Your task to perform on an android device: Show me recent news Image 0: 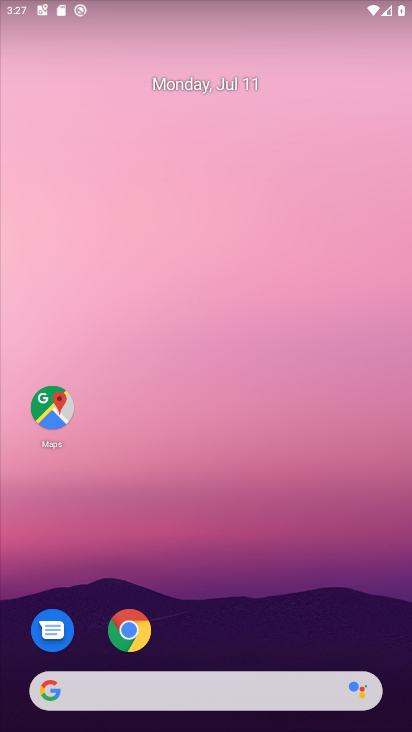
Step 0: click (208, 701)
Your task to perform on an android device: Show me recent news Image 1: 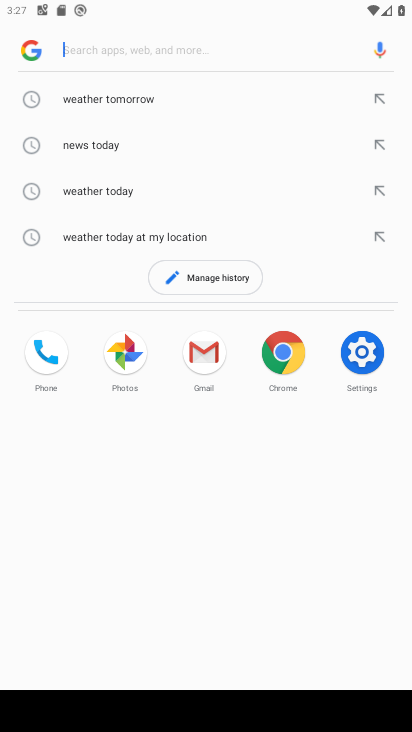
Step 1: task complete